Your task to perform on an android device: Go to Yahoo.com Image 0: 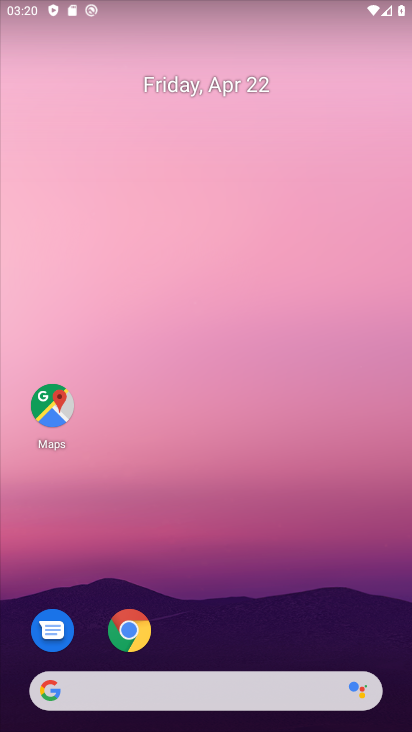
Step 0: click (129, 626)
Your task to perform on an android device: Go to Yahoo.com Image 1: 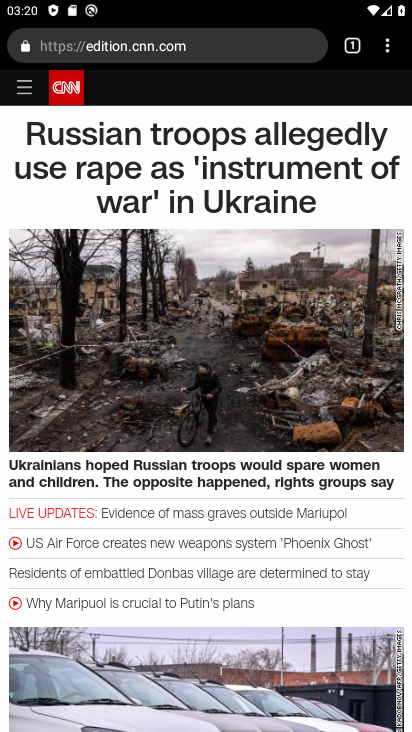
Step 1: click (207, 51)
Your task to perform on an android device: Go to Yahoo.com Image 2: 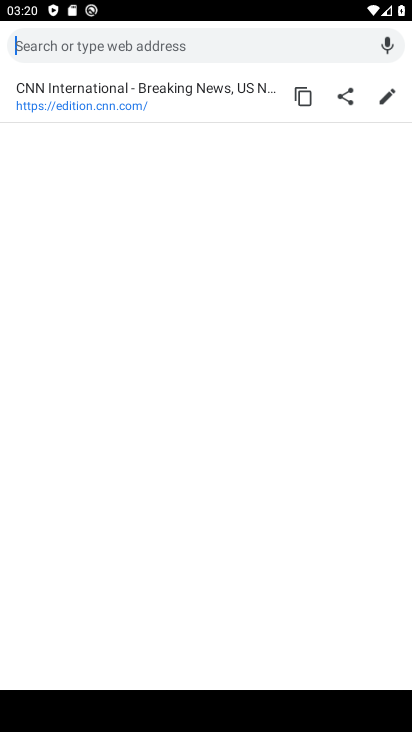
Step 2: type "yahoo.com"
Your task to perform on an android device: Go to Yahoo.com Image 3: 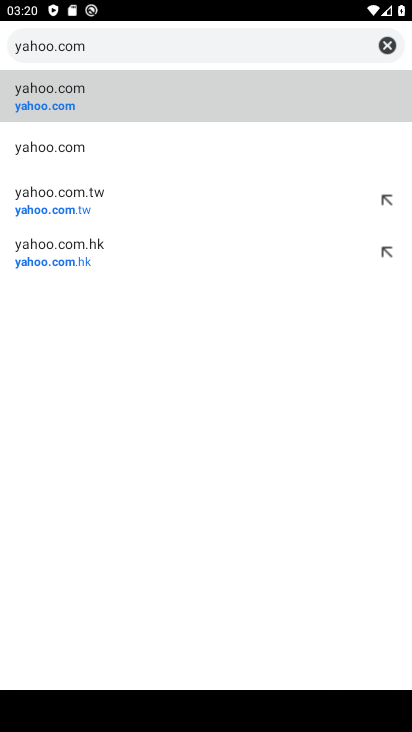
Step 3: click (88, 117)
Your task to perform on an android device: Go to Yahoo.com Image 4: 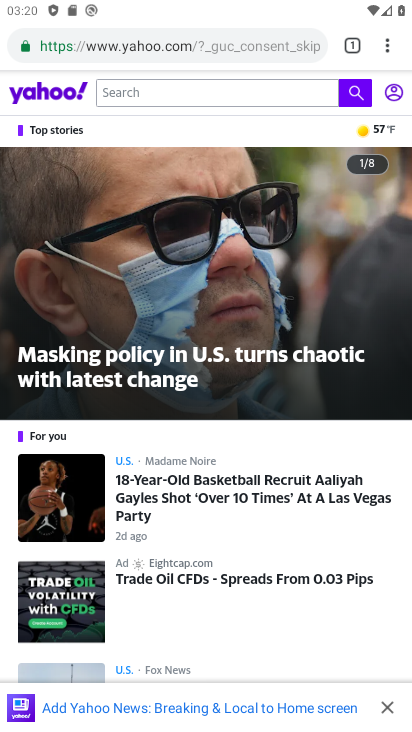
Step 4: task complete